Your task to perform on an android device: What's on my calendar tomorrow? Image 0: 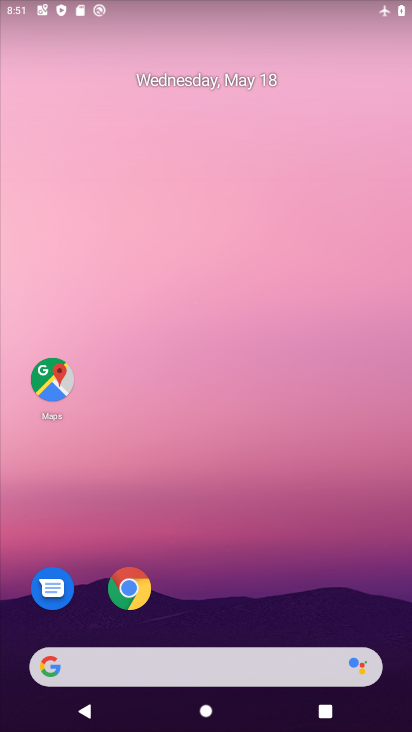
Step 0: drag from (309, 610) to (292, 2)
Your task to perform on an android device: What's on my calendar tomorrow? Image 1: 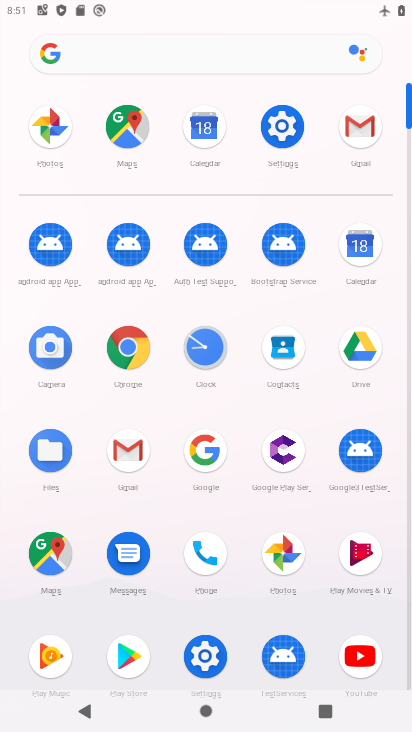
Step 1: click (201, 133)
Your task to perform on an android device: What's on my calendar tomorrow? Image 2: 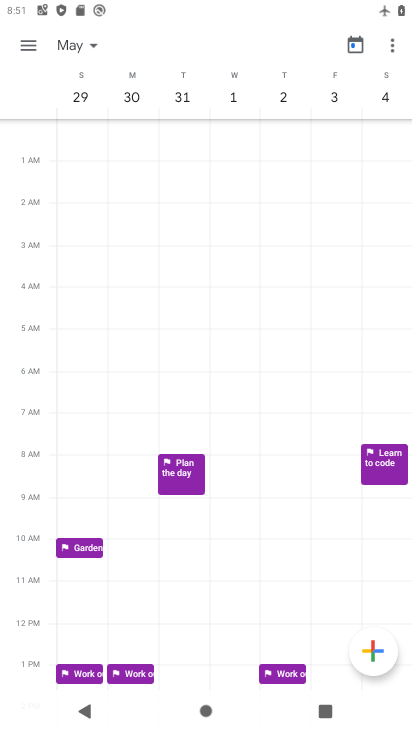
Step 2: click (30, 47)
Your task to perform on an android device: What's on my calendar tomorrow? Image 3: 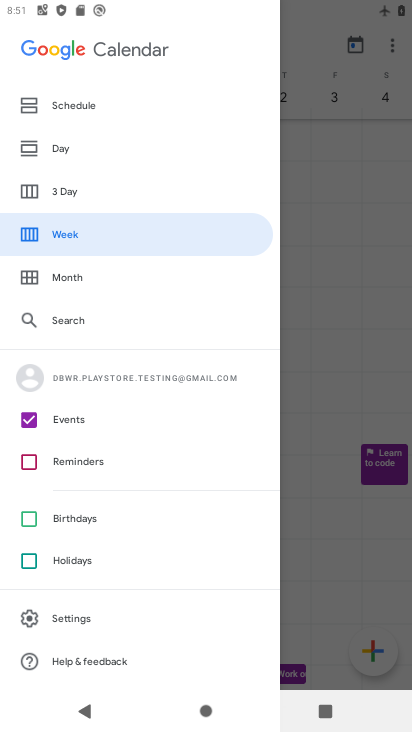
Step 3: click (43, 110)
Your task to perform on an android device: What's on my calendar tomorrow? Image 4: 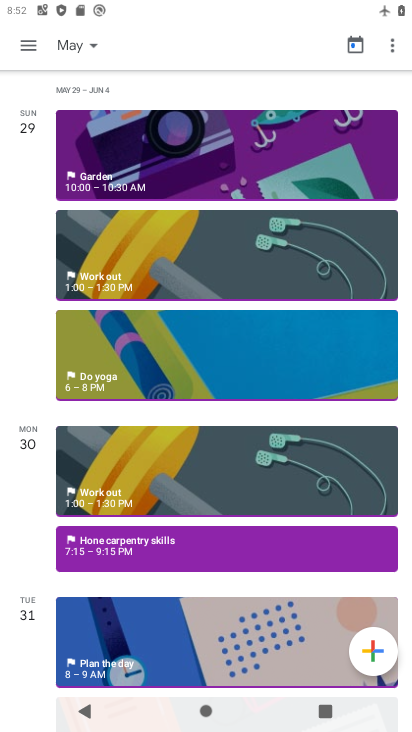
Step 4: click (350, 48)
Your task to perform on an android device: What's on my calendar tomorrow? Image 5: 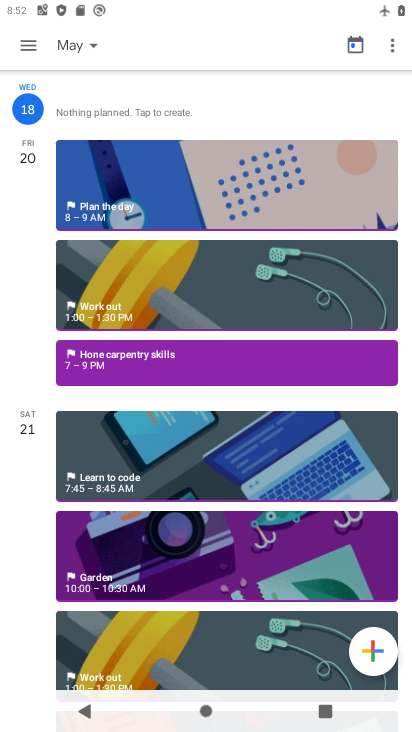
Step 5: click (91, 47)
Your task to perform on an android device: What's on my calendar tomorrow? Image 6: 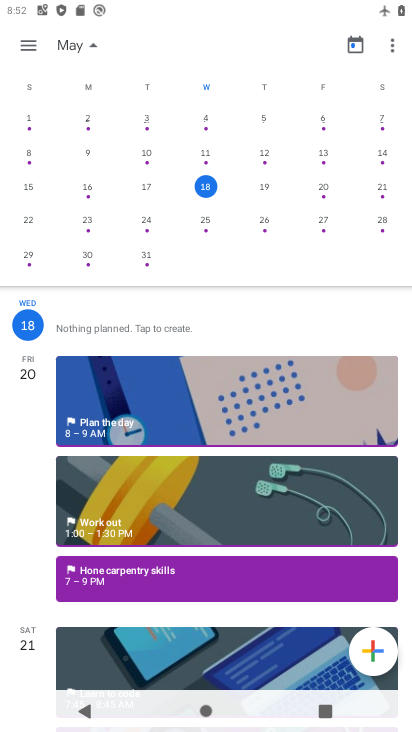
Step 6: click (261, 185)
Your task to perform on an android device: What's on my calendar tomorrow? Image 7: 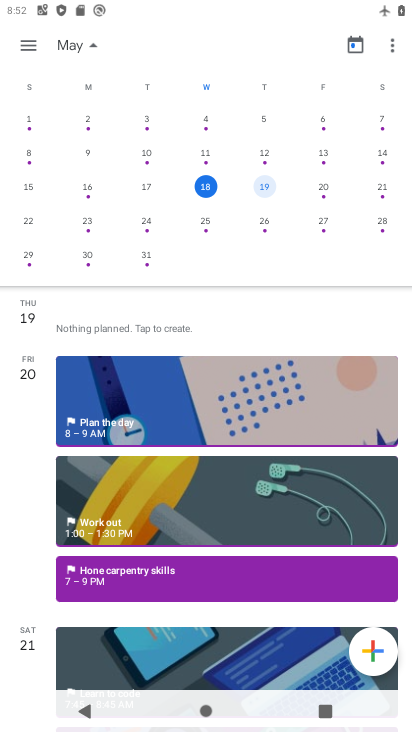
Step 7: click (104, 330)
Your task to perform on an android device: What's on my calendar tomorrow? Image 8: 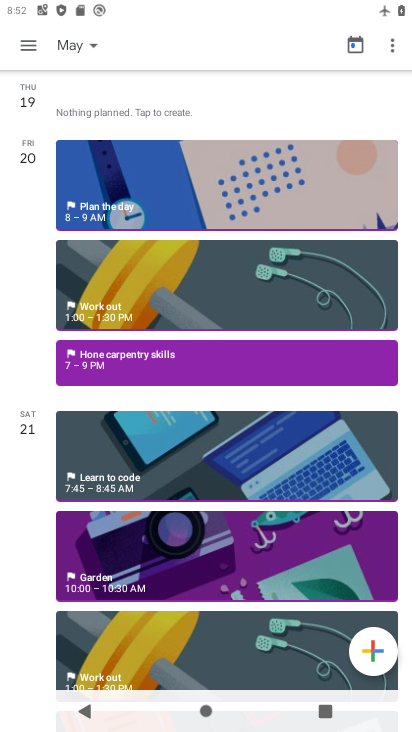
Step 8: click (116, 118)
Your task to perform on an android device: What's on my calendar tomorrow? Image 9: 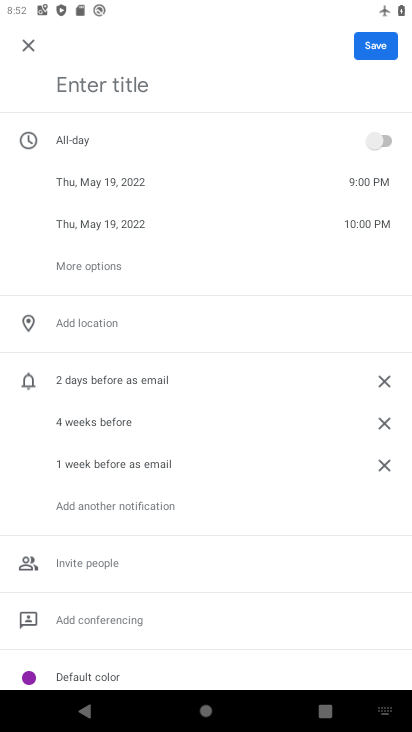
Step 9: task complete